Your task to perform on an android device: find snoozed emails in the gmail app Image 0: 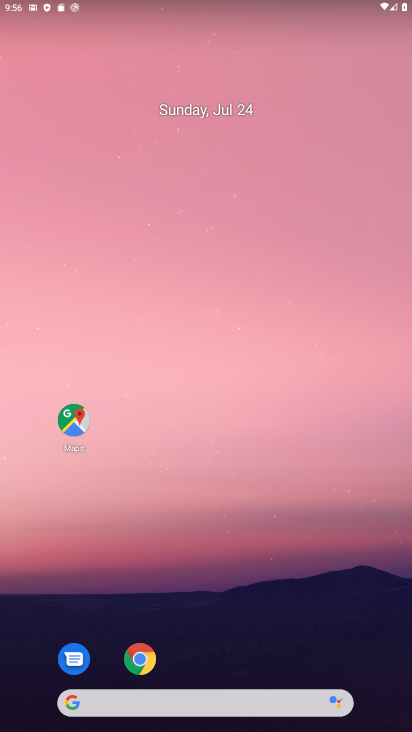
Step 0: drag from (385, 658) to (295, 125)
Your task to perform on an android device: find snoozed emails in the gmail app Image 1: 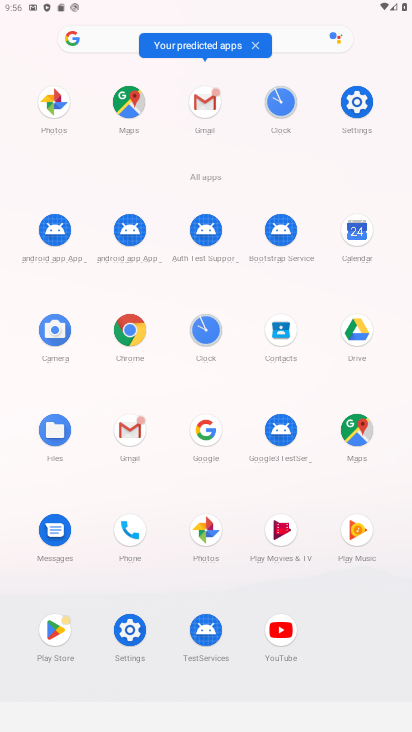
Step 1: click (206, 109)
Your task to perform on an android device: find snoozed emails in the gmail app Image 2: 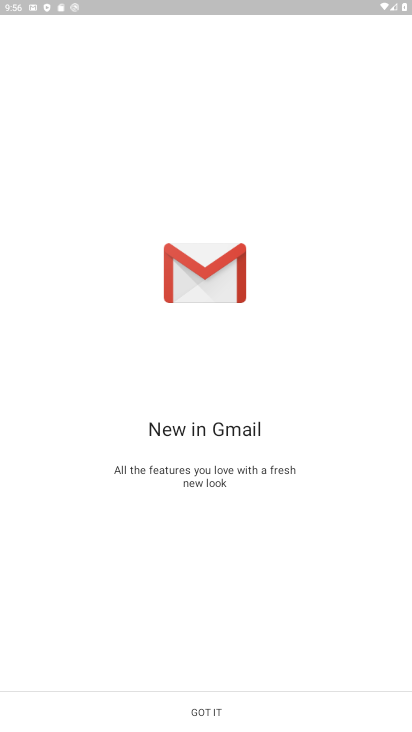
Step 2: click (200, 712)
Your task to perform on an android device: find snoozed emails in the gmail app Image 3: 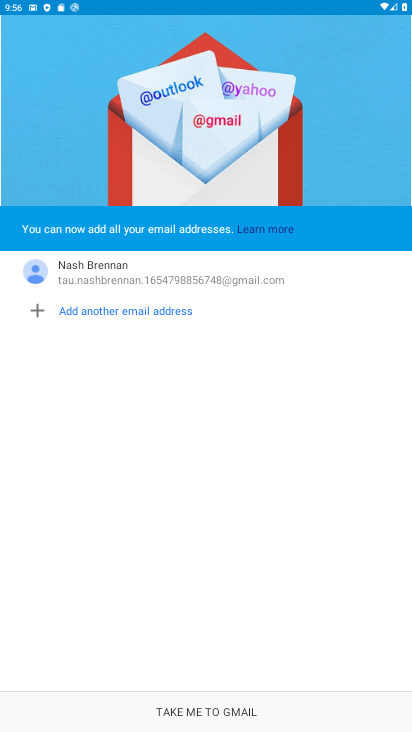
Step 3: click (269, 715)
Your task to perform on an android device: find snoozed emails in the gmail app Image 4: 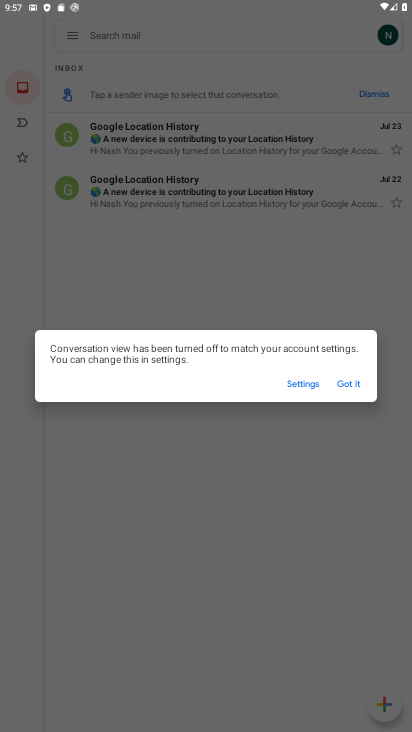
Step 4: click (352, 390)
Your task to perform on an android device: find snoozed emails in the gmail app Image 5: 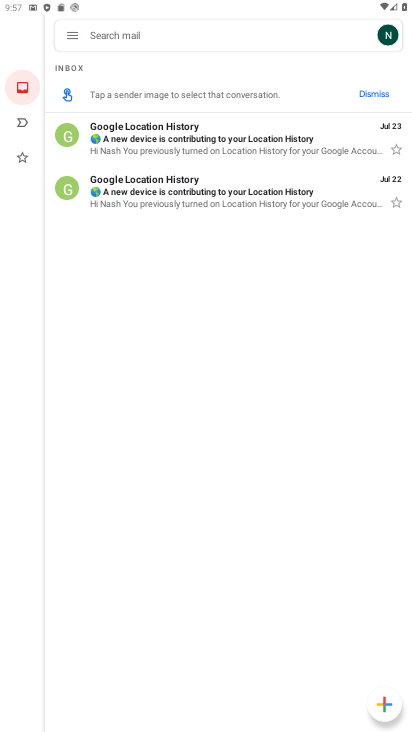
Step 5: click (66, 42)
Your task to perform on an android device: find snoozed emails in the gmail app Image 6: 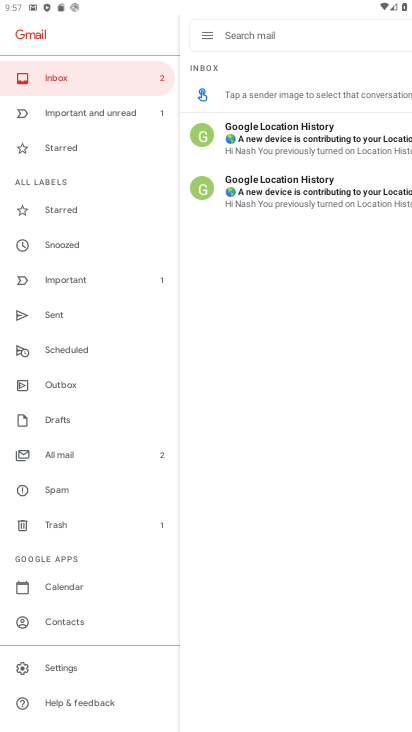
Step 6: click (80, 251)
Your task to perform on an android device: find snoozed emails in the gmail app Image 7: 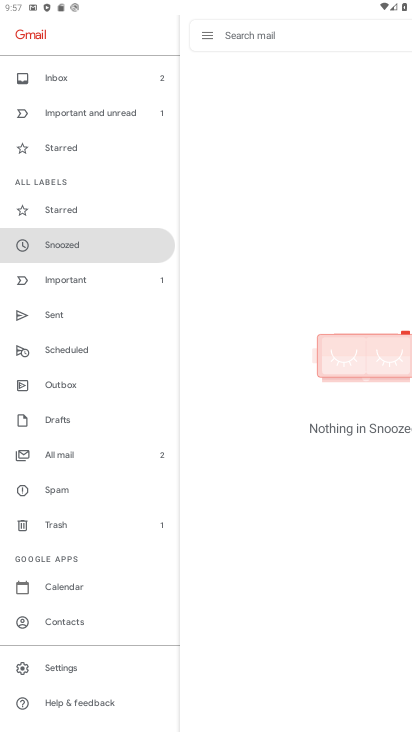
Step 7: task complete